Your task to perform on an android device: turn off data saver in the chrome app Image 0: 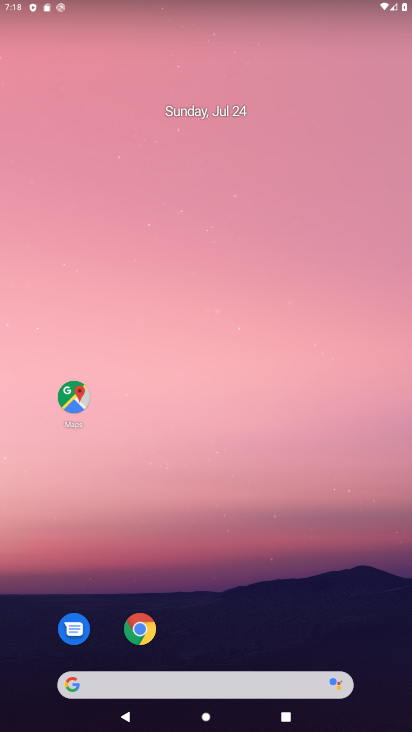
Step 0: drag from (322, 640) to (126, 1)
Your task to perform on an android device: turn off data saver in the chrome app Image 1: 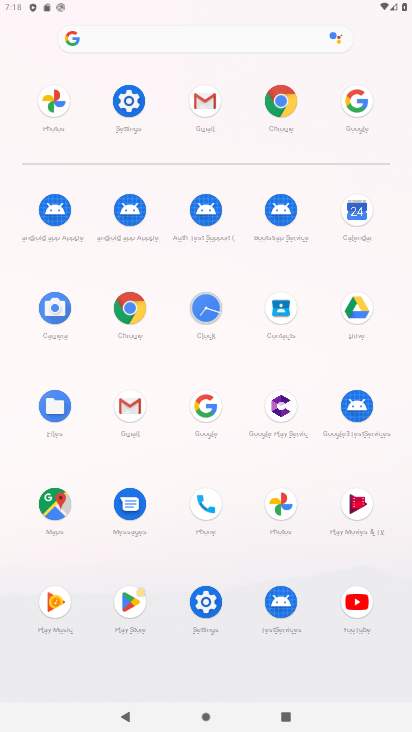
Step 1: click (273, 104)
Your task to perform on an android device: turn off data saver in the chrome app Image 2: 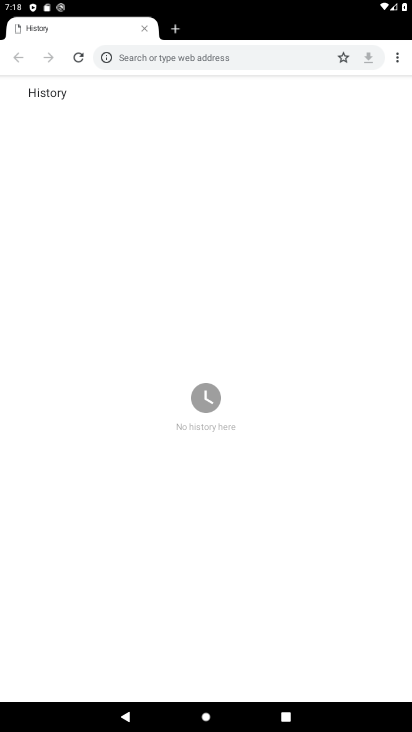
Step 2: click (396, 53)
Your task to perform on an android device: turn off data saver in the chrome app Image 3: 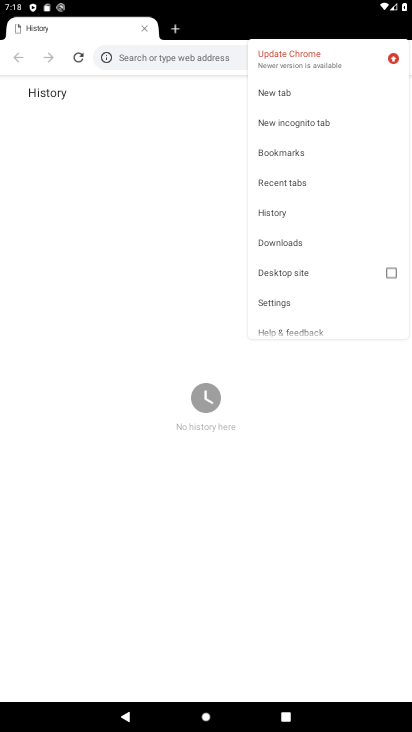
Step 3: click (286, 299)
Your task to perform on an android device: turn off data saver in the chrome app Image 4: 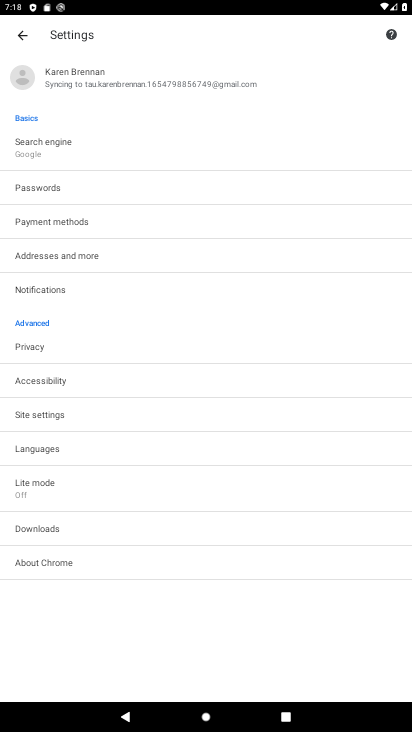
Step 4: click (22, 495)
Your task to perform on an android device: turn off data saver in the chrome app Image 5: 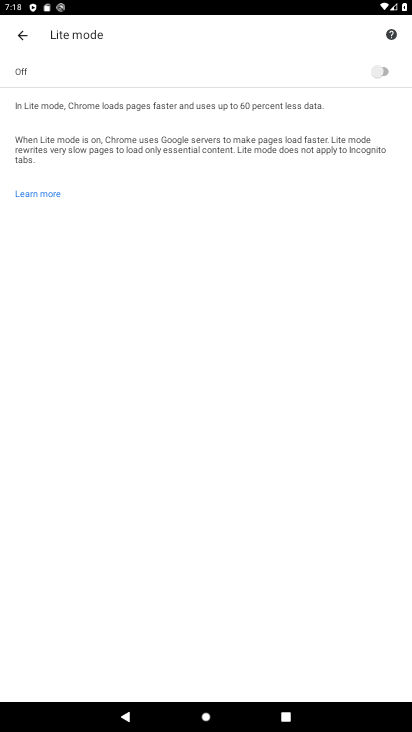
Step 5: task complete